Your task to perform on an android device: turn on translation in the chrome app Image 0: 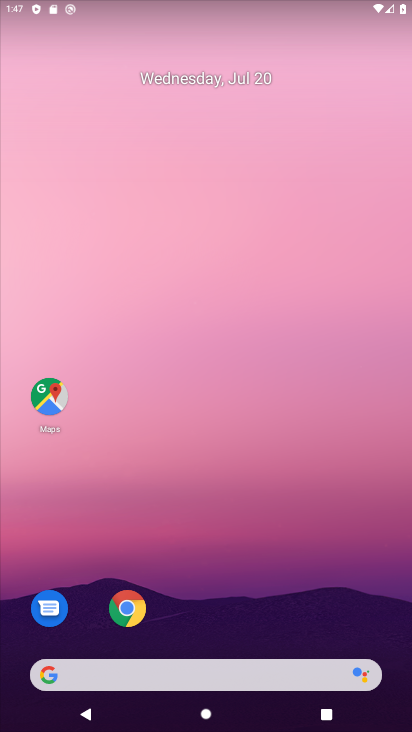
Step 0: drag from (256, 659) to (312, 187)
Your task to perform on an android device: turn on translation in the chrome app Image 1: 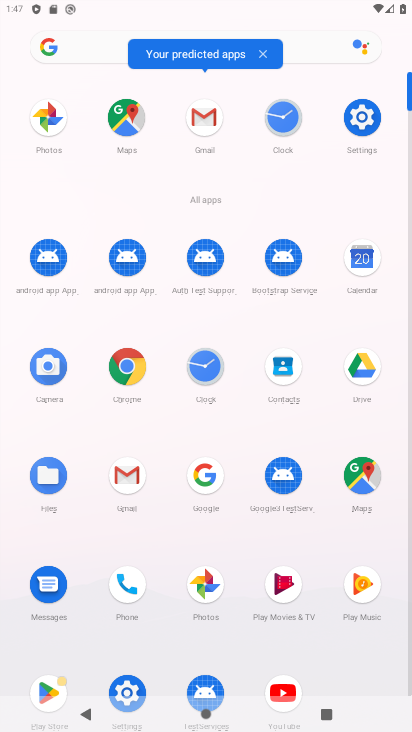
Step 1: click (123, 379)
Your task to perform on an android device: turn on translation in the chrome app Image 2: 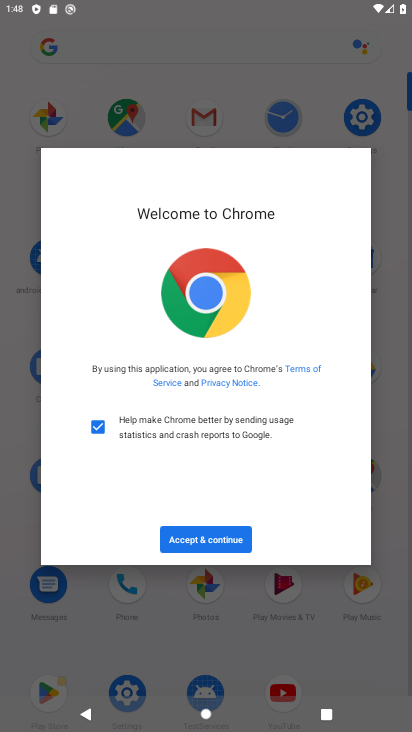
Step 2: click (217, 544)
Your task to perform on an android device: turn on translation in the chrome app Image 3: 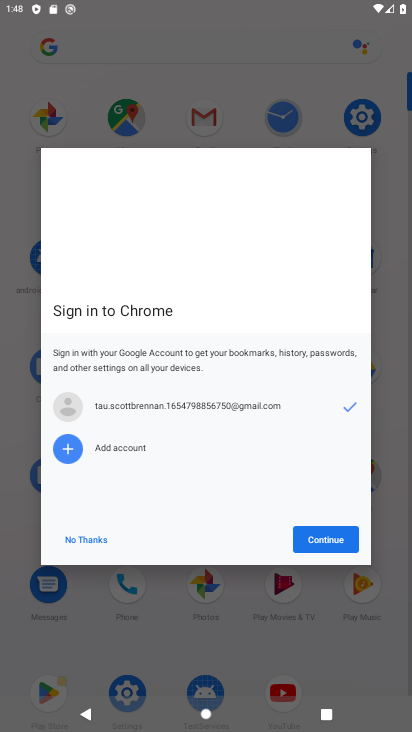
Step 3: click (345, 535)
Your task to perform on an android device: turn on translation in the chrome app Image 4: 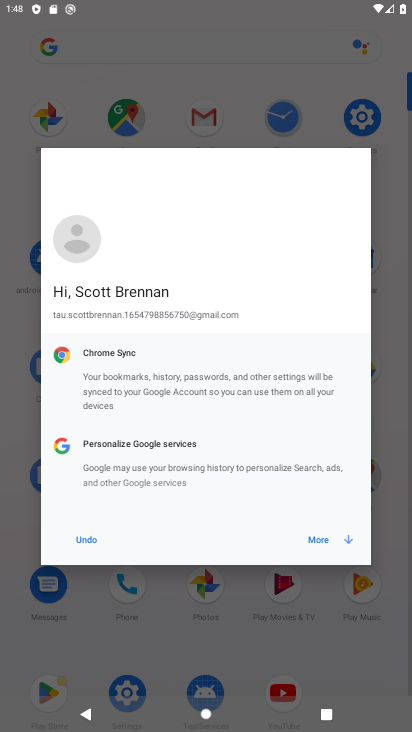
Step 4: click (340, 535)
Your task to perform on an android device: turn on translation in the chrome app Image 5: 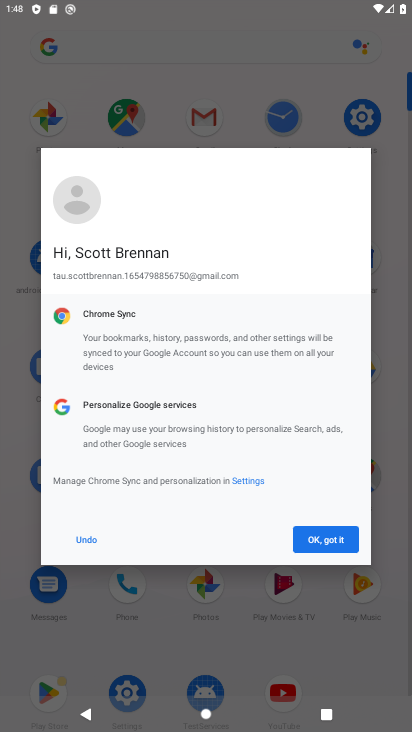
Step 5: click (333, 539)
Your task to perform on an android device: turn on translation in the chrome app Image 6: 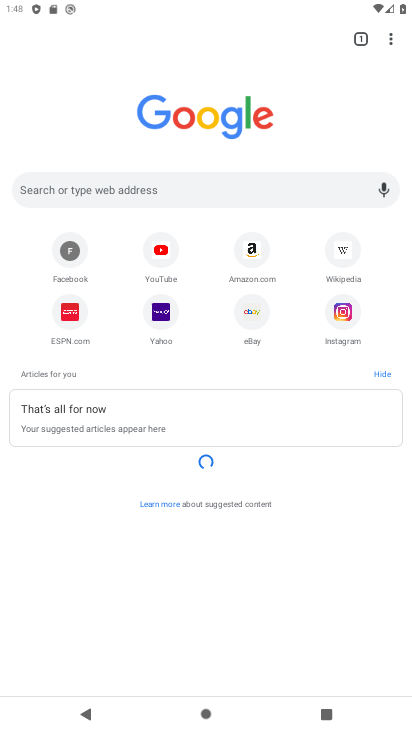
Step 6: drag from (394, 48) to (333, 321)
Your task to perform on an android device: turn on translation in the chrome app Image 7: 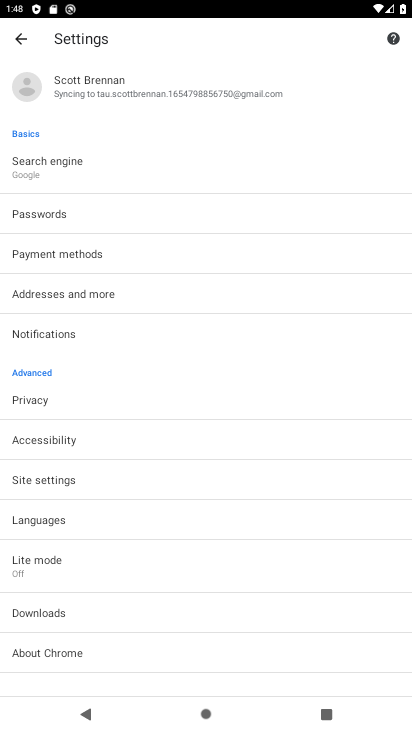
Step 7: click (79, 521)
Your task to perform on an android device: turn on translation in the chrome app Image 8: 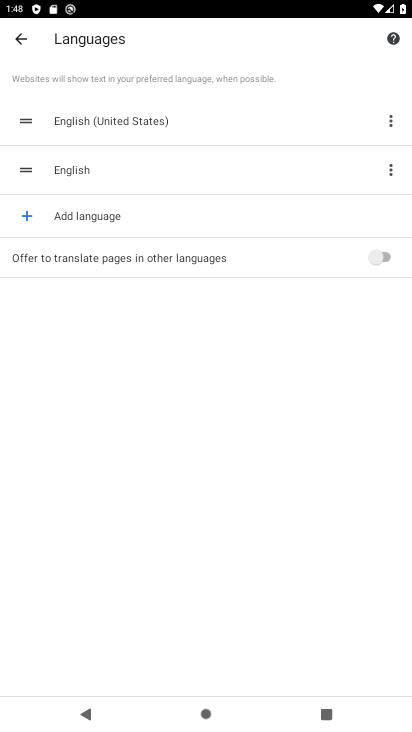
Step 8: click (398, 254)
Your task to perform on an android device: turn on translation in the chrome app Image 9: 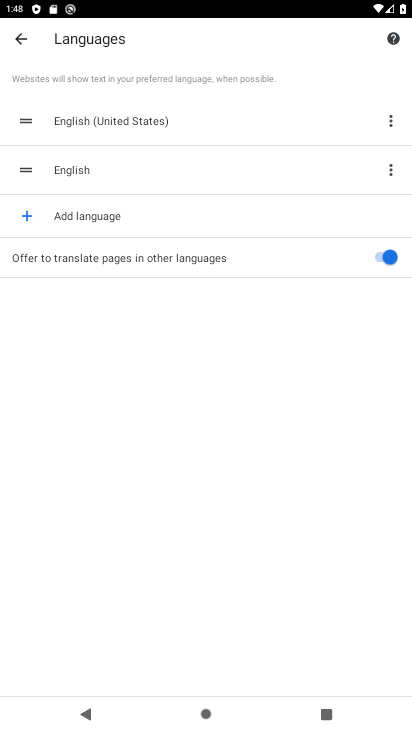
Step 9: task complete